Your task to perform on an android device: Go to Android settings Image 0: 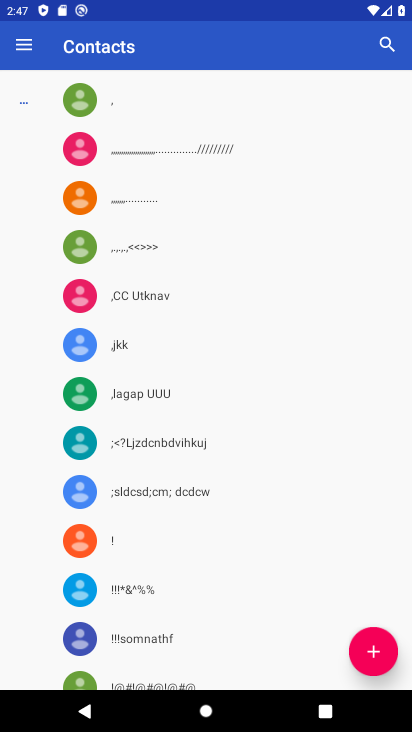
Step 0: press home button
Your task to perform on an android device: Go to Android settings Image 1: 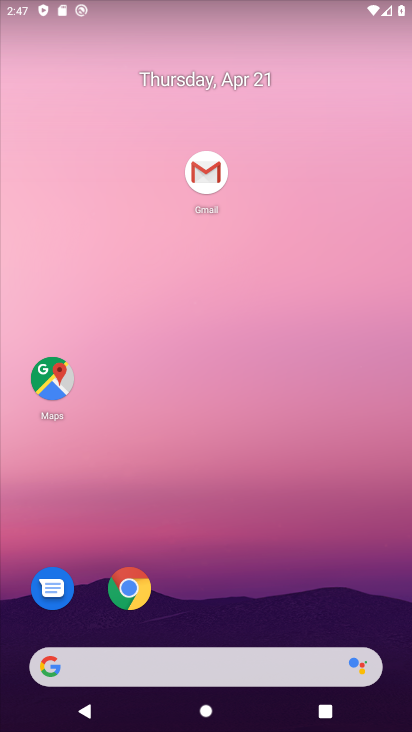
Step 1: drag from (304, 506) to (284, 25)
Your task to perform on an android device: Go to Android settings Image 2: 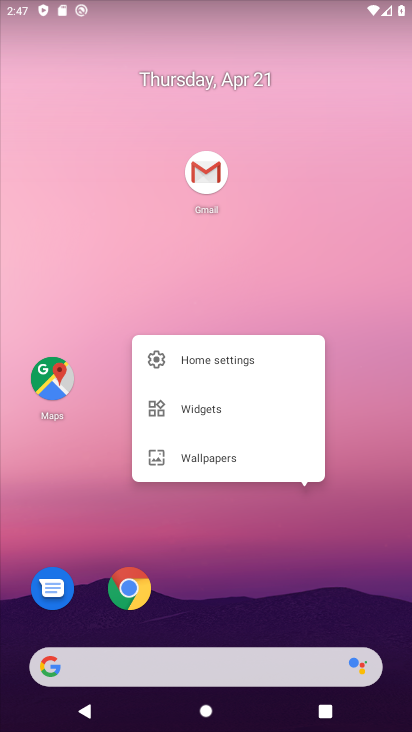
Step 2: drag from (262, 538) to (278, 16)
Your task to perform on an android device: Go to Android settings Image 3: 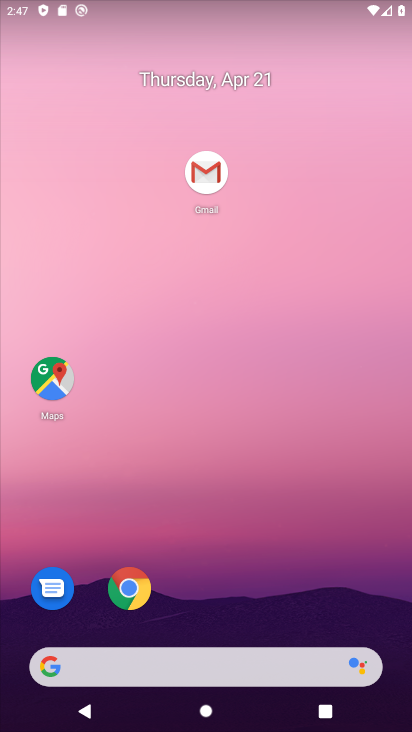
Step 3: drag from (241, 573) to (232, 86)
Your task to perform on an android device: Go to Android settings Image 4: 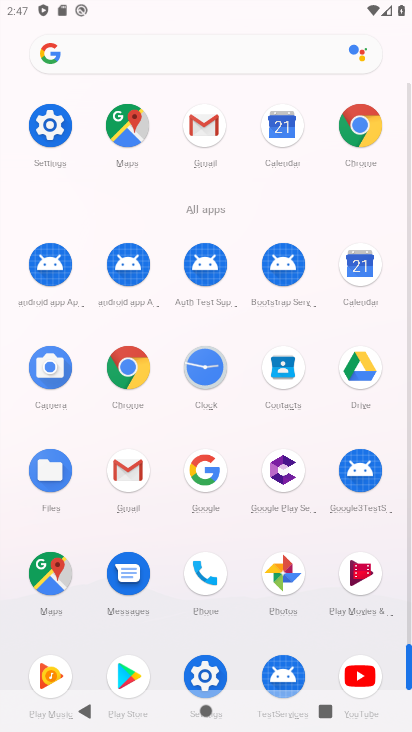
Step 4: click (213, 660)
Your task to perform on an android device: Go to Android settings Image 5: 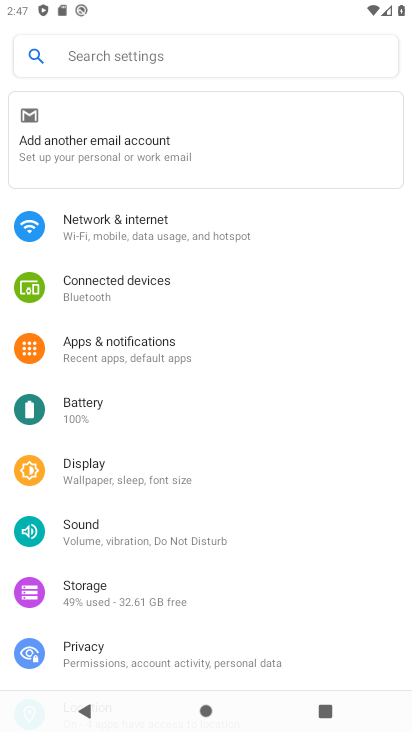
Step 5: drag from (208, 611) to (170, 2)
Your task to perform on an android device: Go to Android settings Image 6: 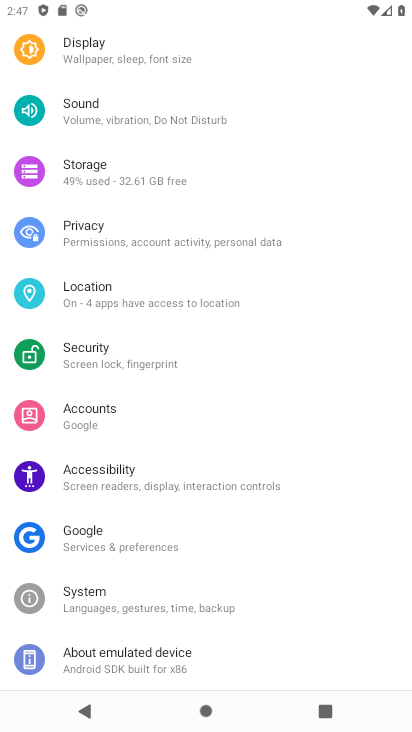
Step 6: drag from (222, 596) to (209, 97)
Your task to perform on an android device: Go to Android settings Image 7: 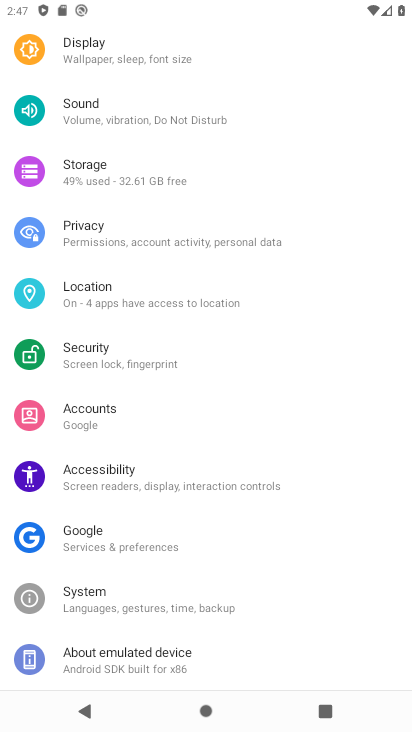
Step 7: drag from (266, 553) to (239, 0)
Your task to perform on an android device: Go to Android settings Image 8: 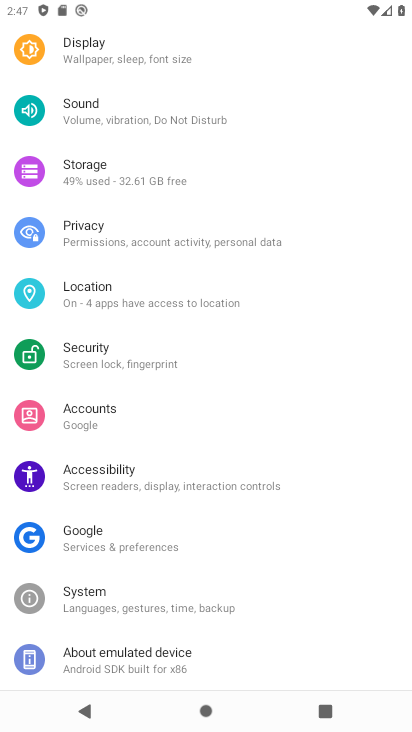
Step 8: click (134, 668)
Your task to perform on an android device: Go to Android settings Image 9: 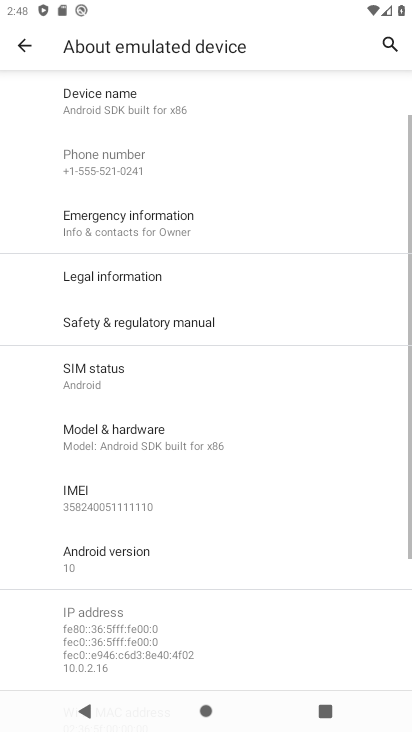
Step 9: click (86, 563)
Your task to perform on an android device: Go to Android settings Image 10: 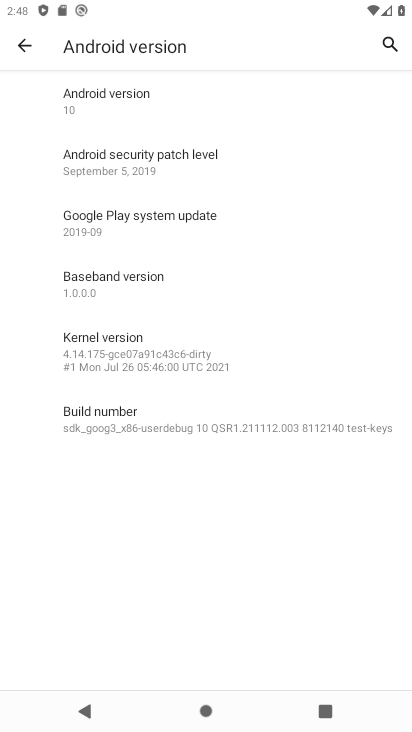
Step 10: click (129, 104)
Your task to perform on an android device: Go to Android settings Image 11: 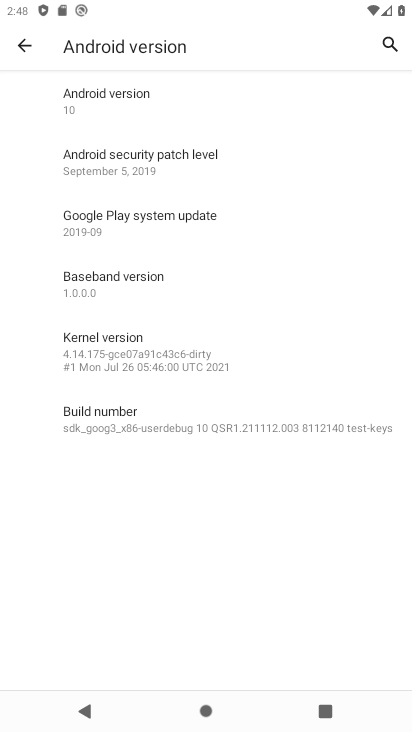
Step 11: click (172, 92)
Your task to perform on an android device: Go to Android settings Image 12: 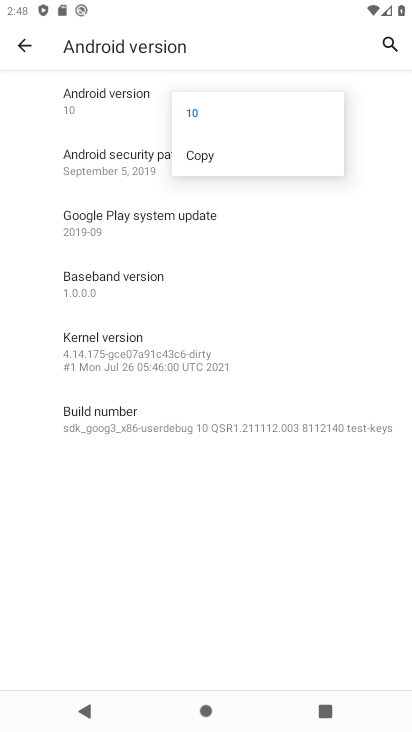
Step 12: task complete